Your task to perform on an android device: Open the calendar and show me this week's events? Image 0: 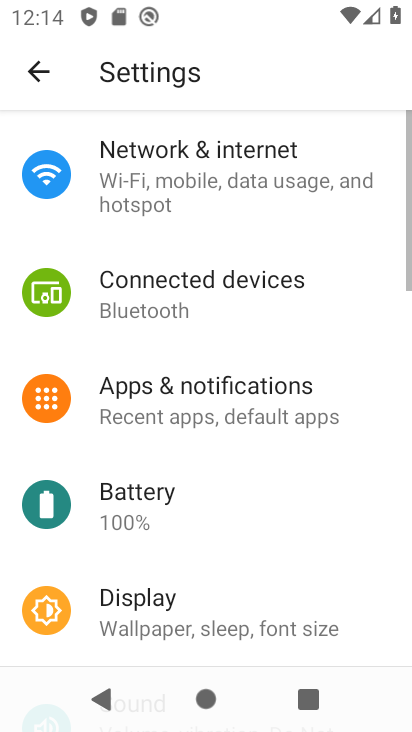
Step 0: press home button
Your task to perform on an android device: Open the calendar and show me this week's events? Image 1: 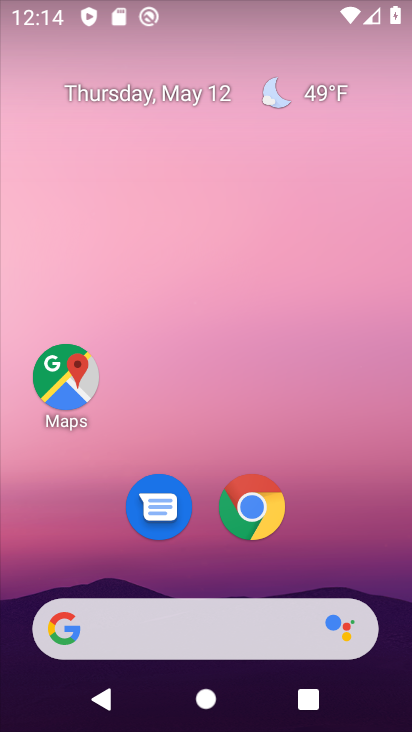
Step 1: drag from (335, 562) to (325, 104)
Your task to perform on an android device: Open the calendar and show me this week's events? Image 2: 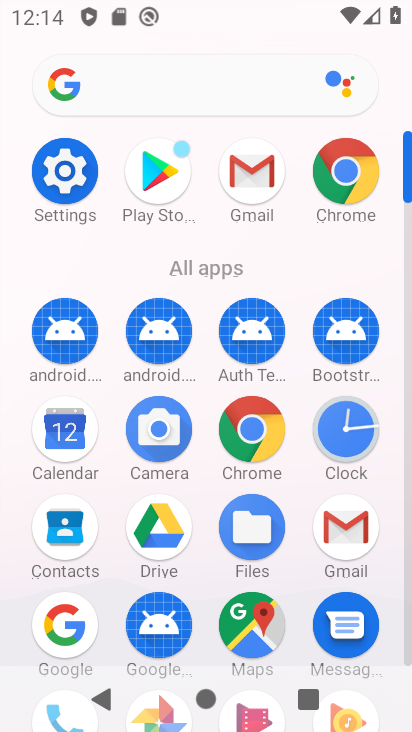
Step 2: click (82, 434)
Your task to perform on an android device: Open the calendar and show me this week's events? Image 3: 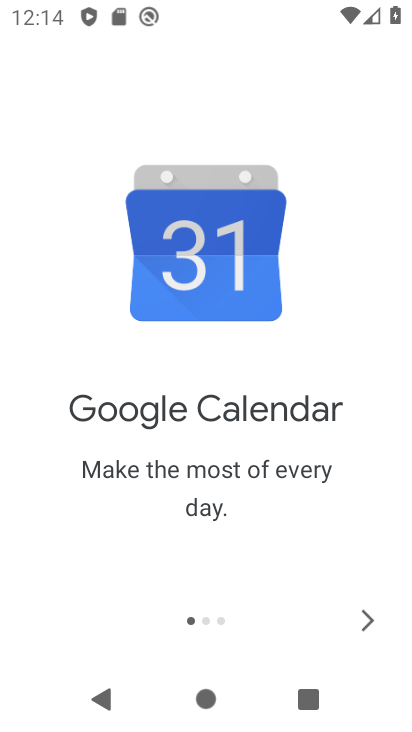
Step 3: click (364, 624)
Your task to perform on an android device: Open the calendar and show me this week's events? Image 4: 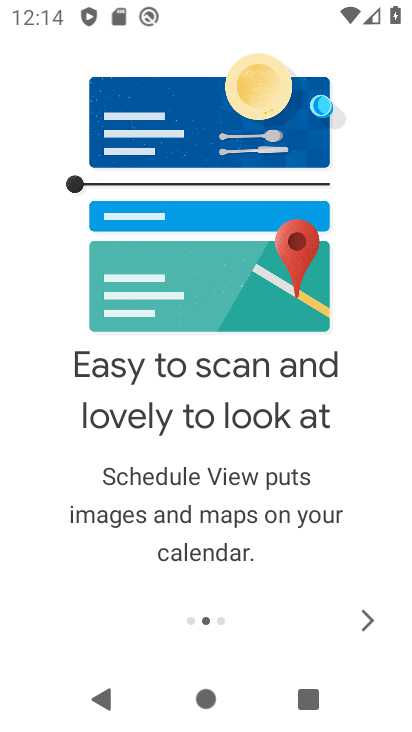
Step 4: click (364, 624)
Your task to perform on an android device: Open the calendar and show me this week's events? Image 5: 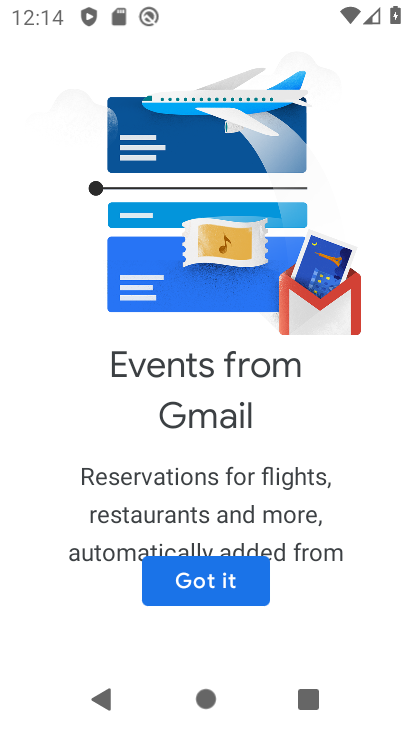
Step 5: click (259, 586)
Your task to perform on an android device: Open the calendar and show me this week's events? Image 6: 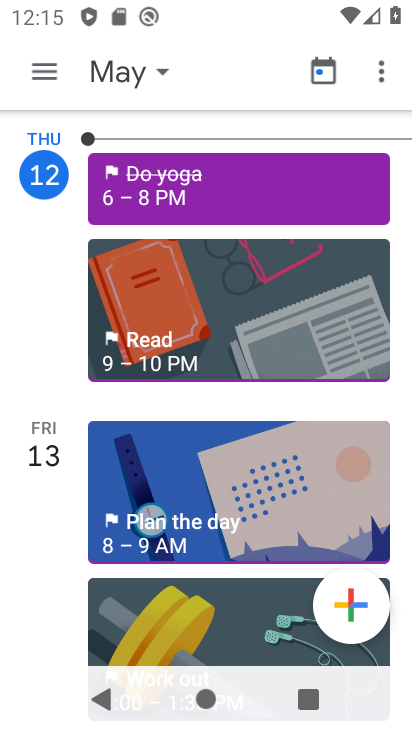
Step 6: click (141, 76)
Your task to perform on an android device: Open the calendar and show me this week's events? Image 7: 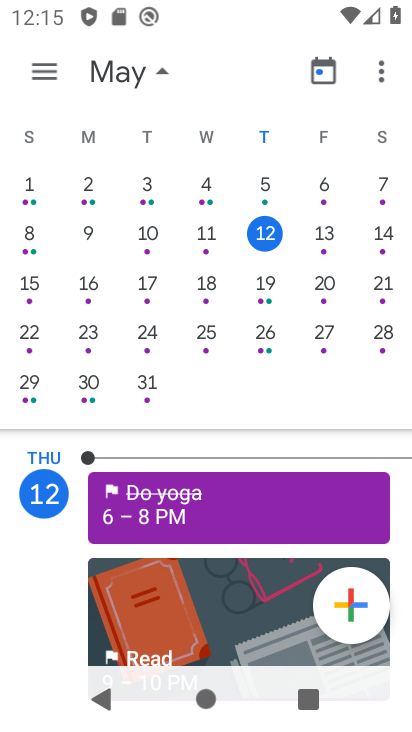
Step 7: click (324, 243)
Your task to perform on an android device: Open the calendar and show me this week's events? Image 8: 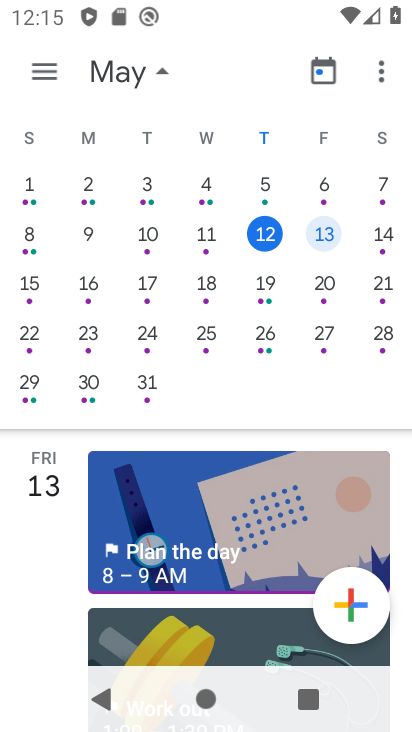
Step 8: task complete